Your task to perform on an android device: Go to privacy settings Image 0: 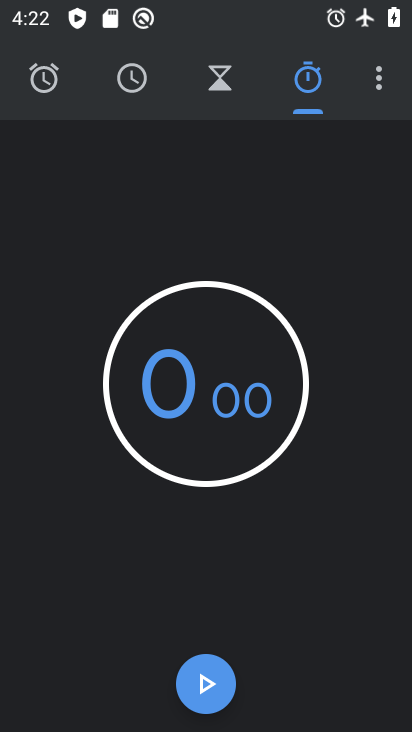
Step 0: drag from (351, 556) to (341, 262)
Your task to perform on an android device: Go to privacy settings Image 1: 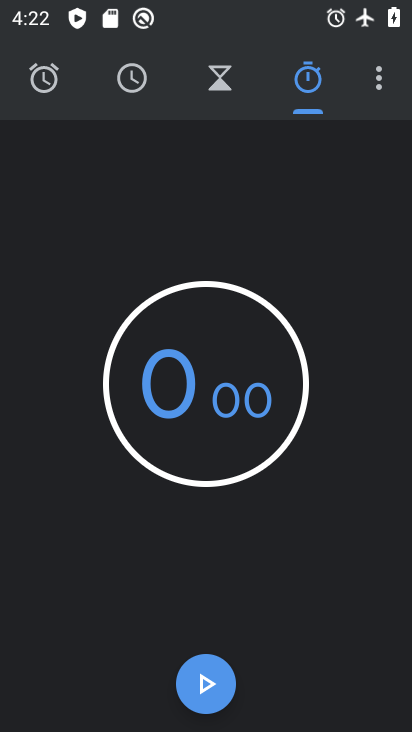
Step 1: press home button
Your task to perform on an android device: Go to privacy settings Image 2: 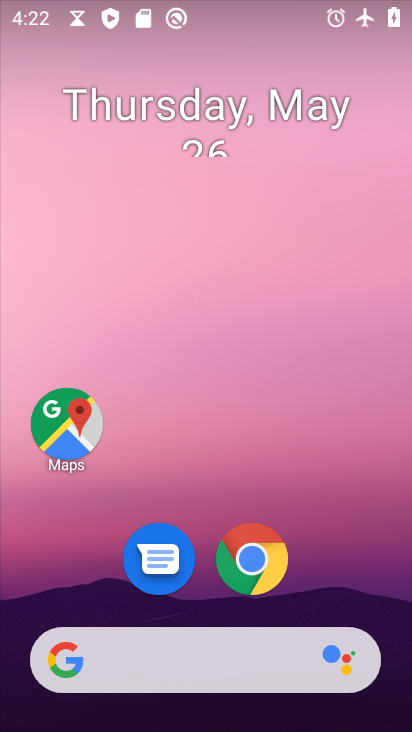
Step 2: drag from (341, 549) to (267, 3)
Your task to perform on an android device: Go to privacy settings Image 3: 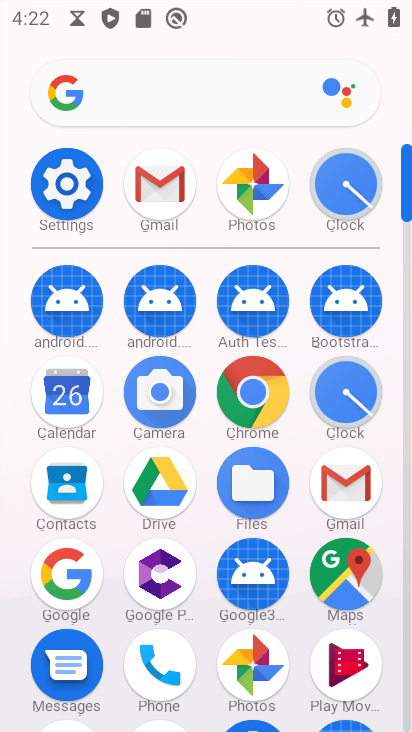
Step 3: click (62, 159)
Your task to perform on an android device: Go to privacy settings Image 4: 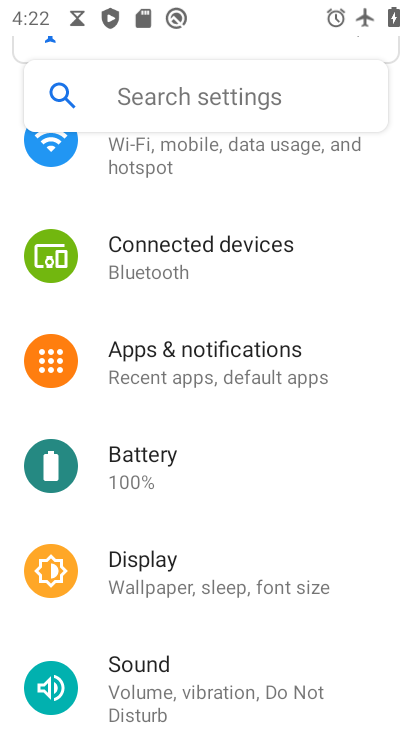
Step 4: drag from (260, 499) to (292, 145)
Your task to perform on an android device: Go to privacy settings Image 5: 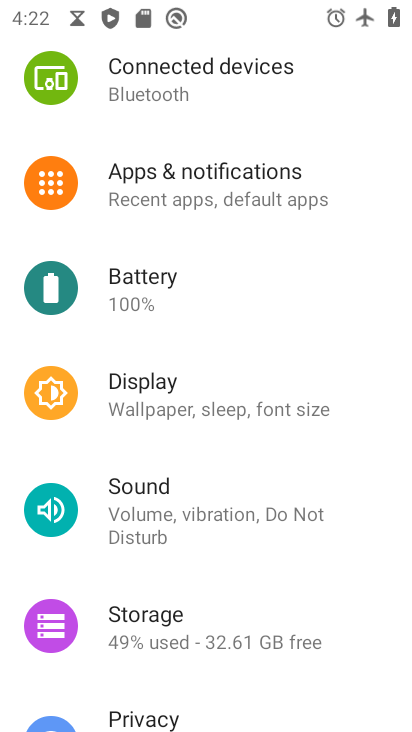
Step 5: click (195, 714)
Your task to perform on an android device: Go to privacy settings Image 6: 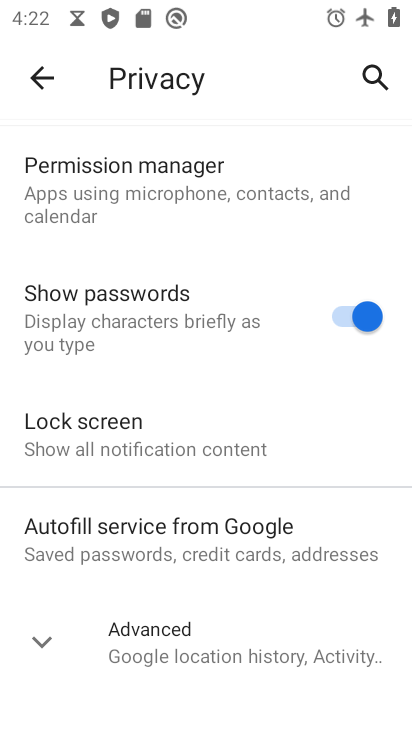
Step 6: task complete